Your task to perform on an android device: read, delete, or share a saved page in the chrome app Image 0: 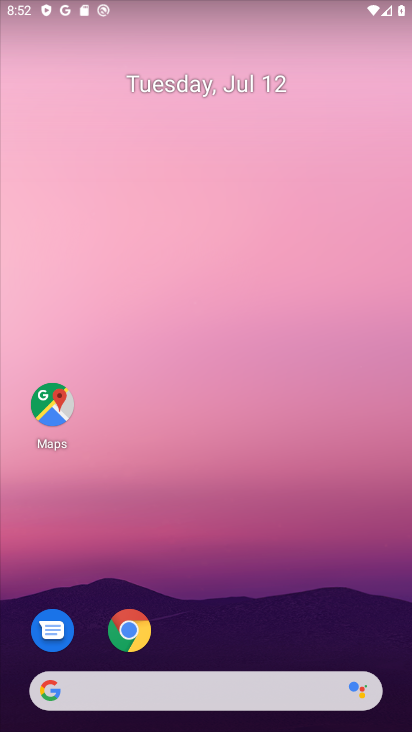
Step 0: click (130, 634)
Your task to perform on an android device: read, delete, or share a saved page in the chrome app Image 1: 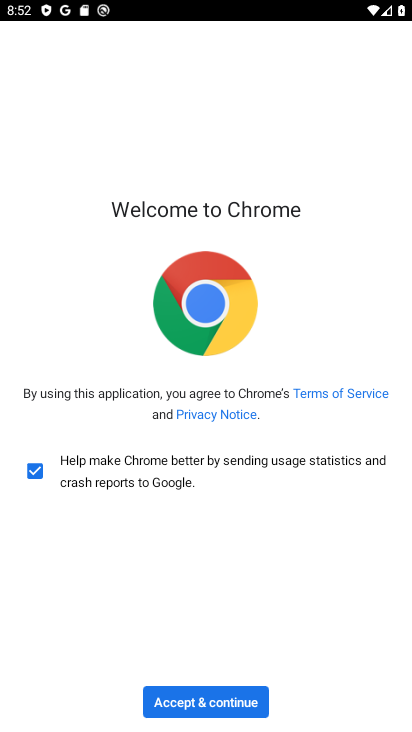
Step 1: click (217, 703)
Your task to perform on an android device: read, delete, or share a saved page in the chrome app Image 2: 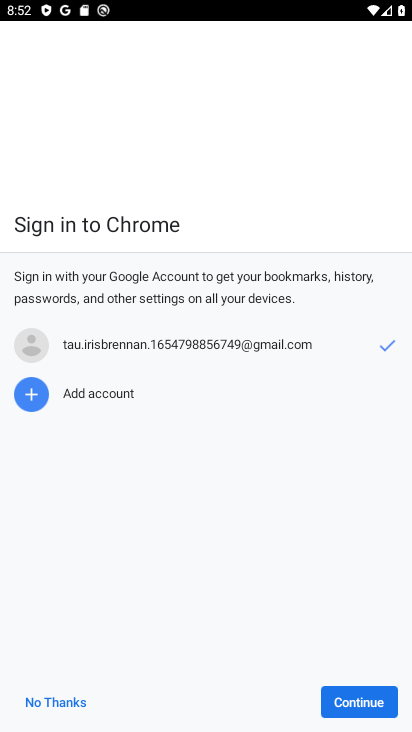
Step 2: click (329, 704)
Your task to perform on an android device: read, delete, or share a saved page in the chrome app Image 3: 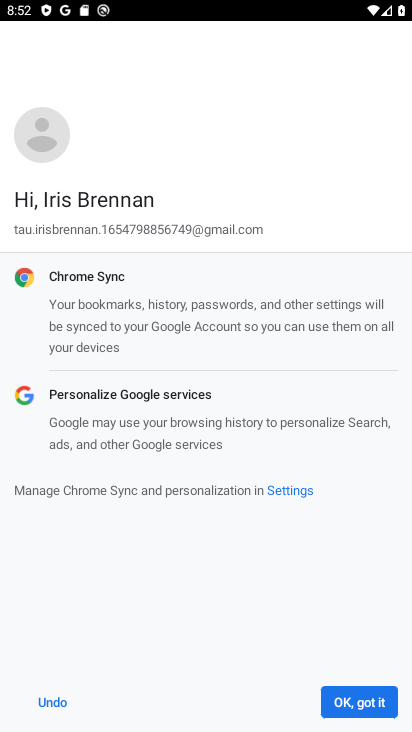
Step 3: click (357, 701)
Your task to perform on an android device: read, delete, or share a saved page in the chrome app Image 4: 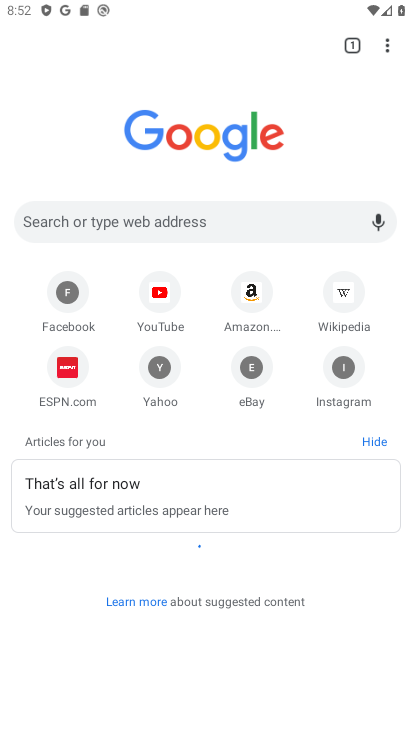
Step 4: click (382, 44)
Your task to perform on an android device: read, delete, or share a saved page in the chrome app Image 5: 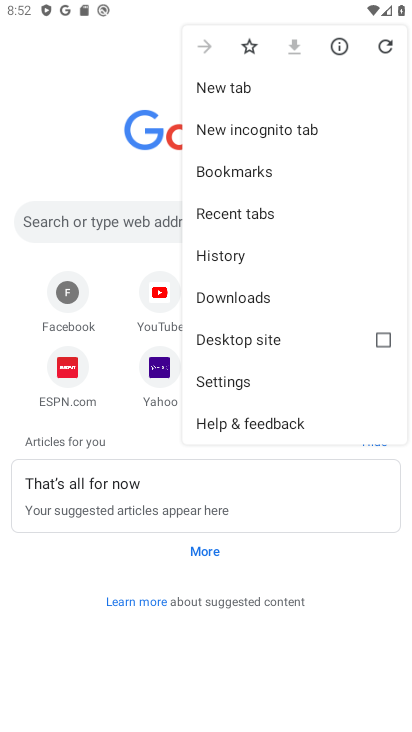
Step 5: click (250, 297)
Your task to perform on an android device: read, delete, or share a saved page in the chrome app Image 6: 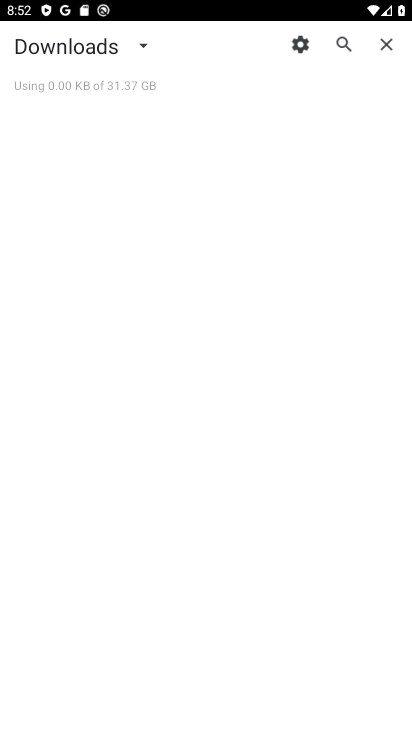
Step 6: task complete